Your task to perform on an android device: show emergency info Image 0: 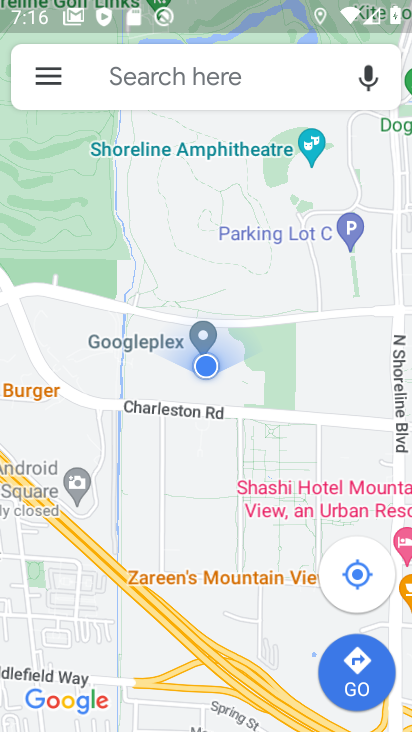
Step 0: press home button
Your task to perform on an android device: show emergency info Image 1: 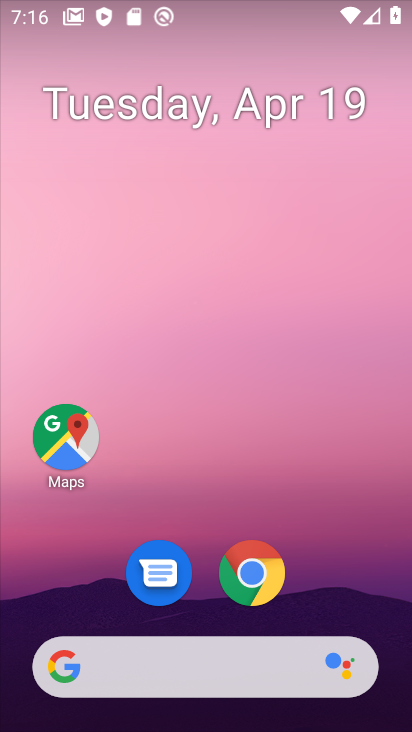
Step 1: click (334, 155)
Your task to perform on an android device: show emergency info Image 2: 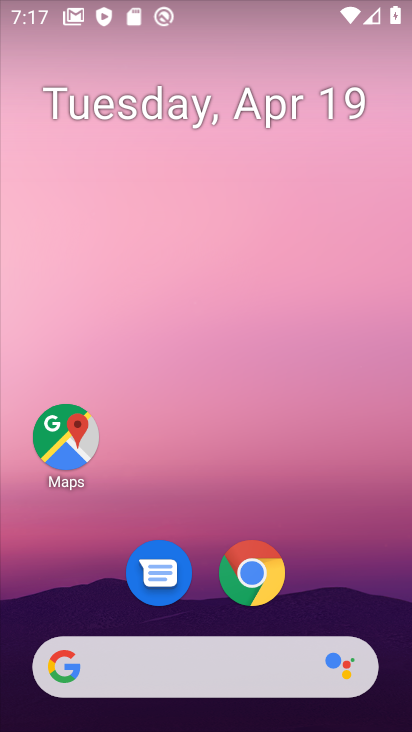
Step 2: drag from (341, 411) to (309, 90)
Your task to perform on an android device: show emergency info Image 3: 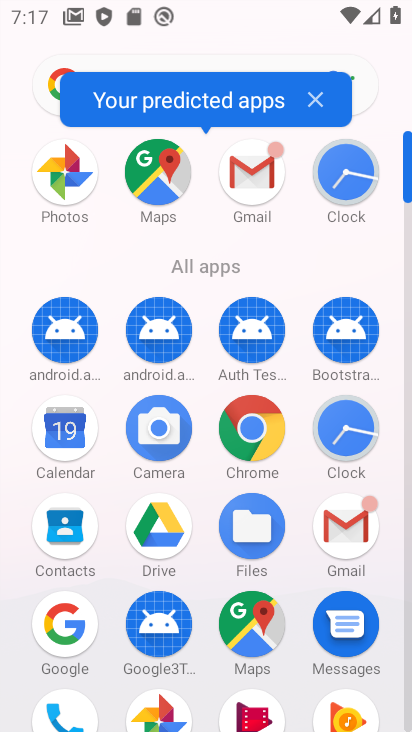
Step 3: drag from (407, 177) to (404, 33)
Your task to perform on an android device: show emergency info Image 4: 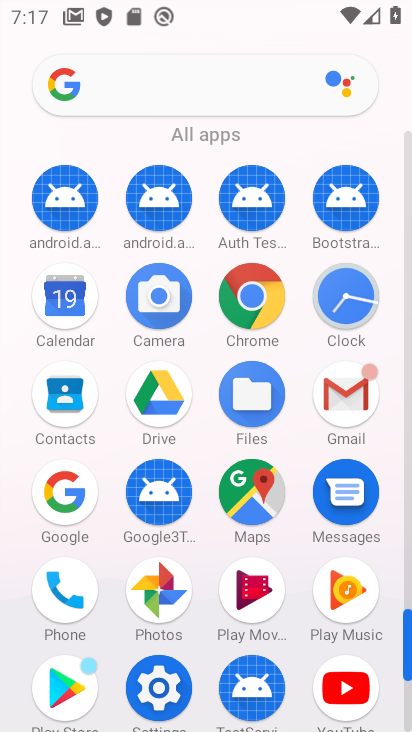
Step 4: click (150, 659)
Your task to perform on an android device: show emergency info Image 5: 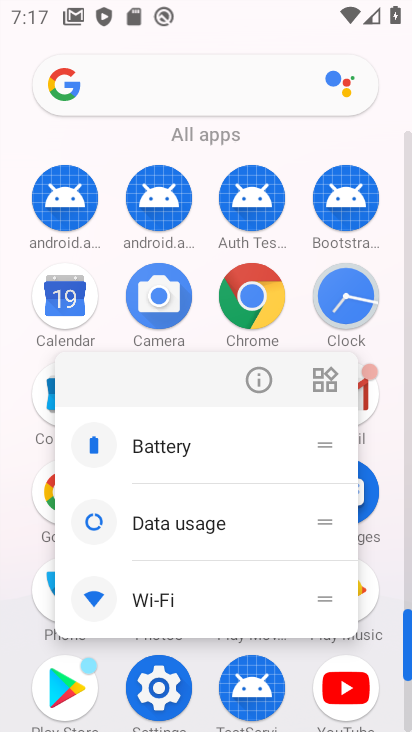
Step 5: click (144, 690)
Your task to perform on an android device: show emergency info Image 6: 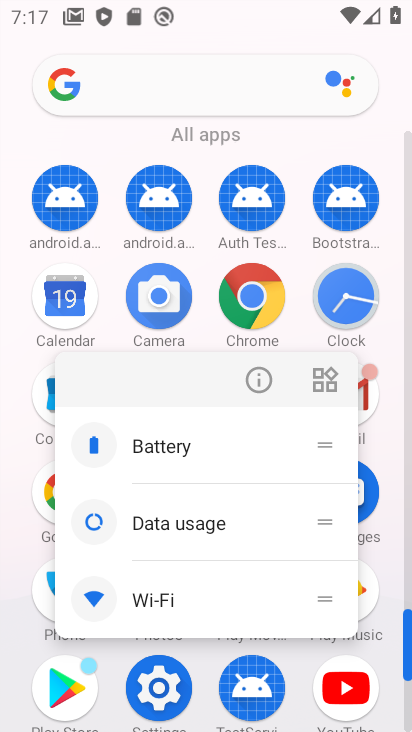
Step 6: click (159, 661)
Your task to perform on an android device: show emergency info Image 7: 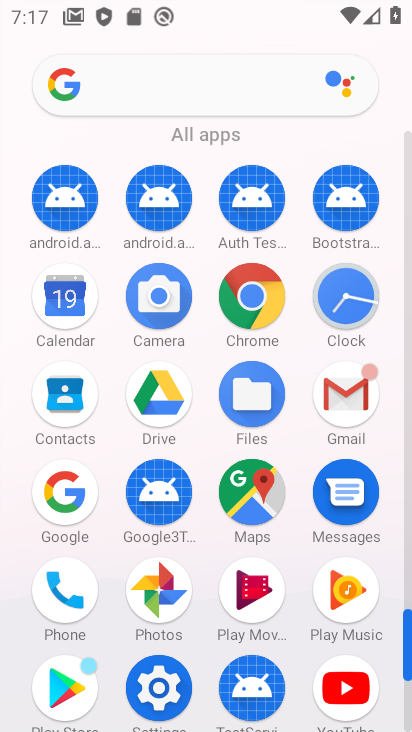
Step 7: click (136, 677)
Your task to perform on an android device: show emergency info Image 8: 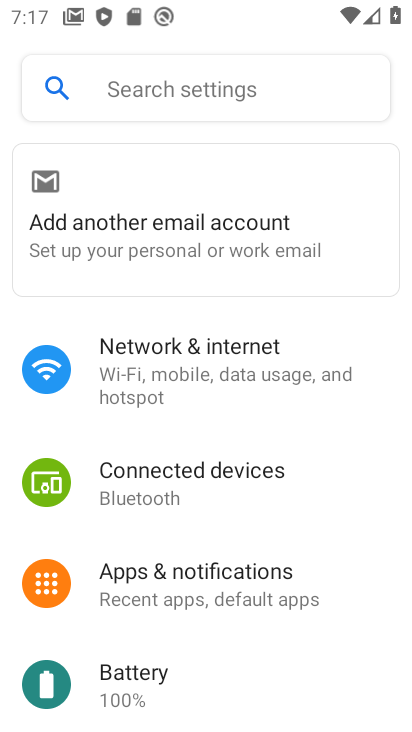
Step 8: drag from (403, 195) to (391, 37)
Your task to perform on an android device: show emergency info Image 9: 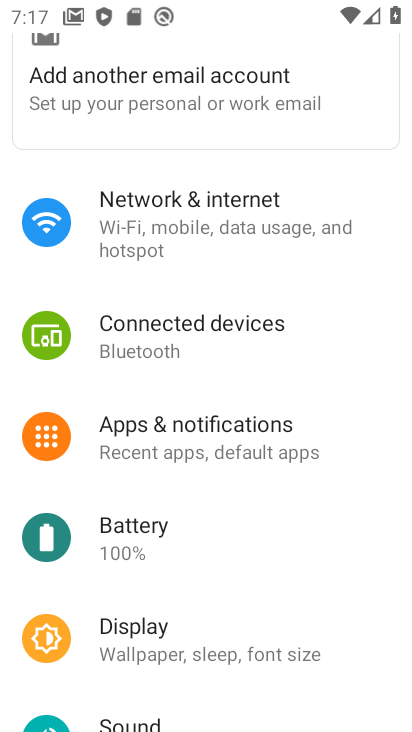
Step 9: click (403, 154)
Your task to perform on an android device: show emergency info Image 10: 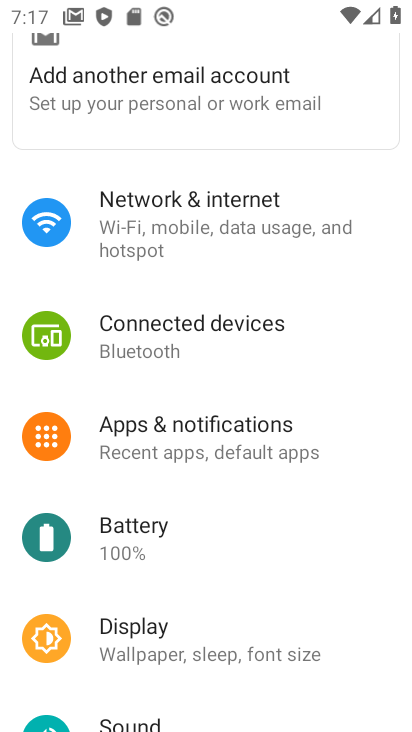
Step 10: drag from (408, 160) to (406, 15)
Your task to perform on an android device: show emergency info Image 11: 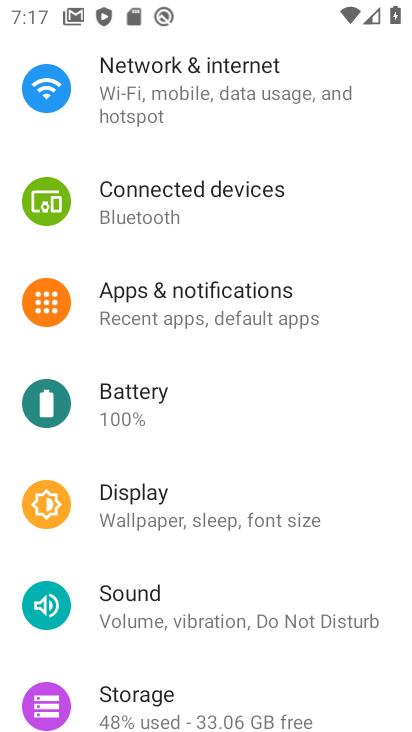
Step 11: drag from (401, 476) to (366, 168)
Your task to perform on an android device: show emergency info Image 12: 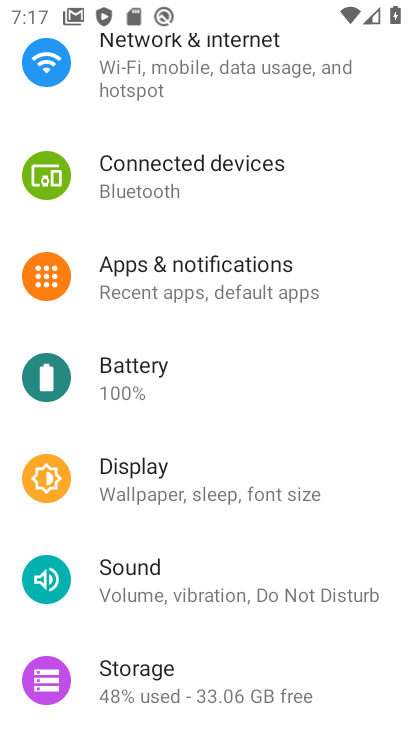
Step 12: drag from (404, 443) to (403, 232)
Your task to perform on an android device: show emergency info Image 13: 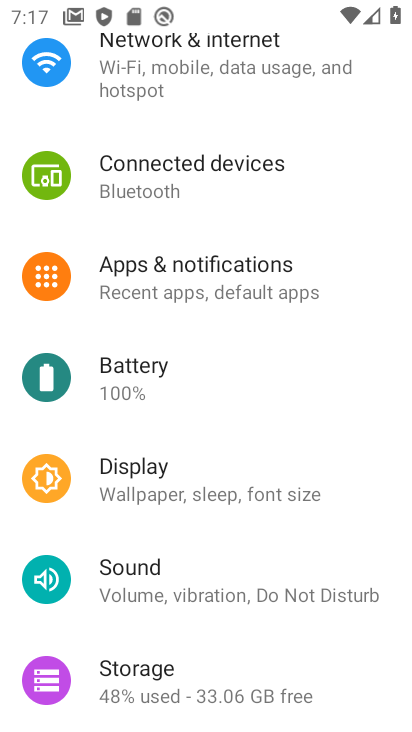
Step 13: drag from (406, 446) to (400, 199)
Your task to perform on an android device: show emergency info Image 14: 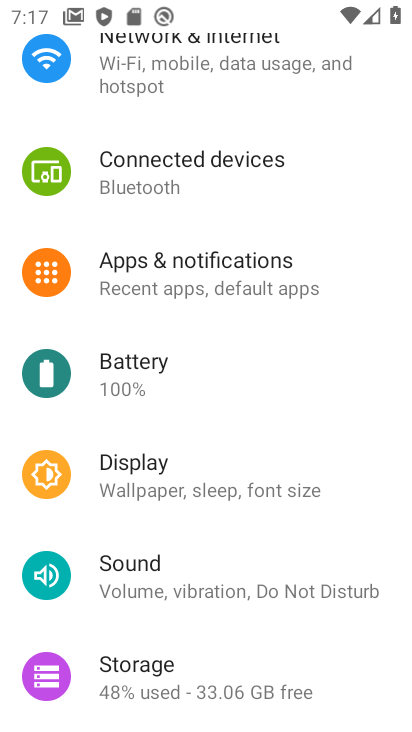
Step 14: drag from (404, 537) to (392, 187)
Your task to perform on an android device: show emergency info Image 15: 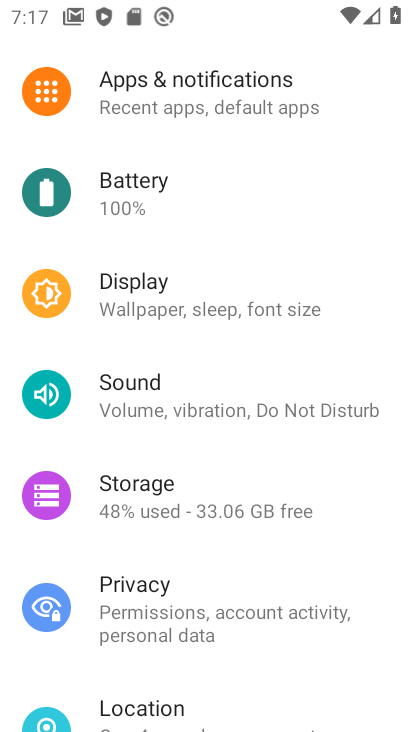
Step 15: drag from (381, 239) to (369, 121)
Your task to perform on an android device: show emergency info Image 16: 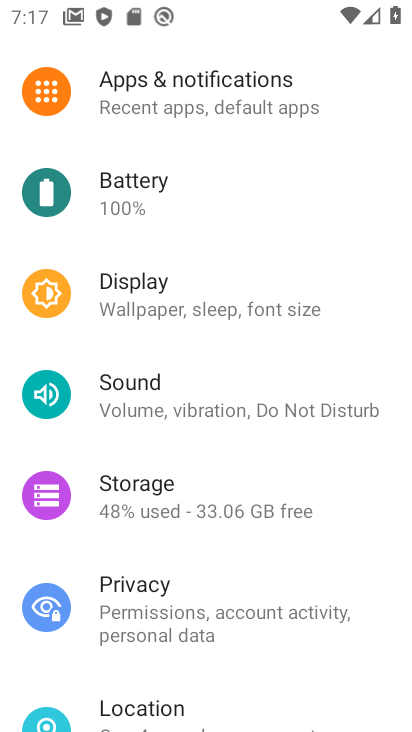
Step 16: drag from (403, 316) to (403, 28)
Your task to perform on an android device: show emergency info Image 17: 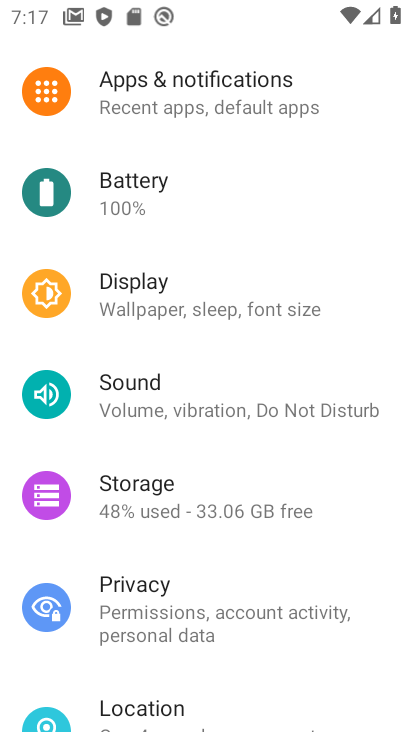
Step 17: drag from (401, 430) to (396, 162)
Your task to perform on an android device: show emergency info Image 18: 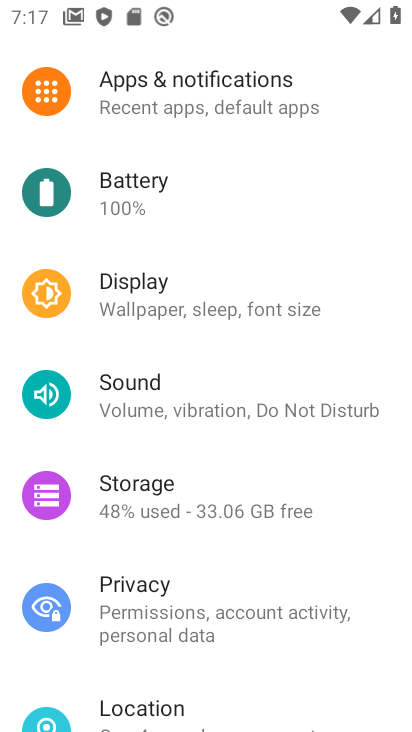
Step 18: drag from (402, 514) to (399, 230)
Your task to perform on an android device: show emergency info Image 19: 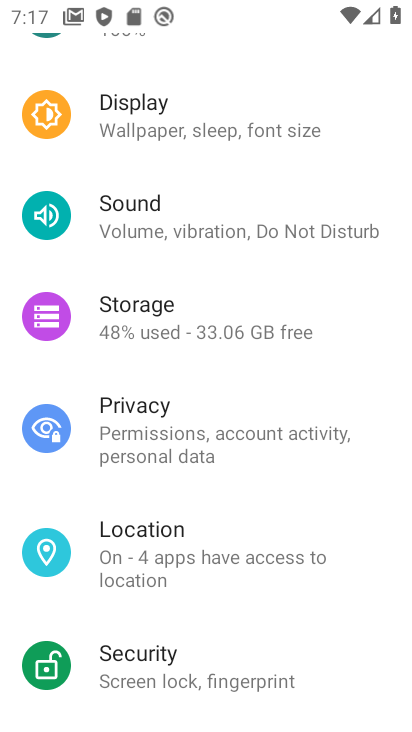
Step 19: drag from (411, 367) to (405, 136)
Your task to perform on an android device: show emergency info Image 20: 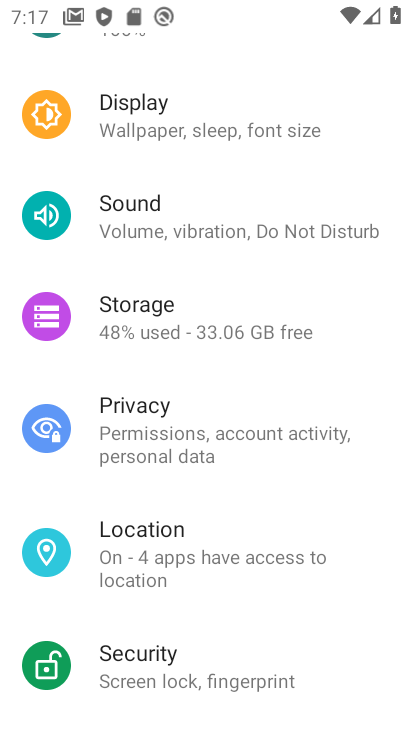
Step 20: drag from (388, 533) to (366, 169)
Your task to perform on an android device: show emergency info Image 21: 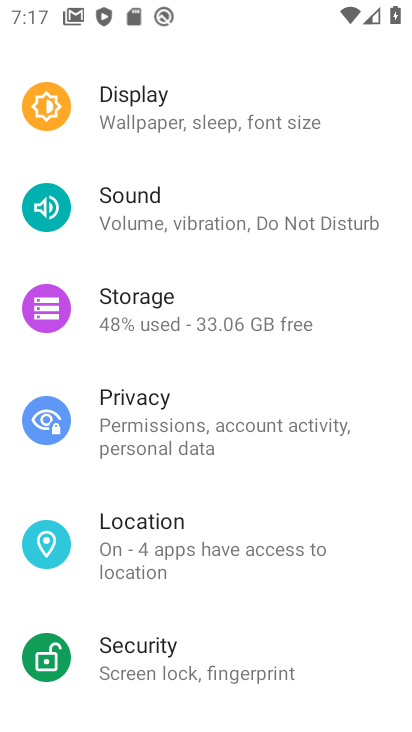
Step 21: drag from (387, 480) to (393, 104)
Your task to perform on an android device: show emergency info Image 22: 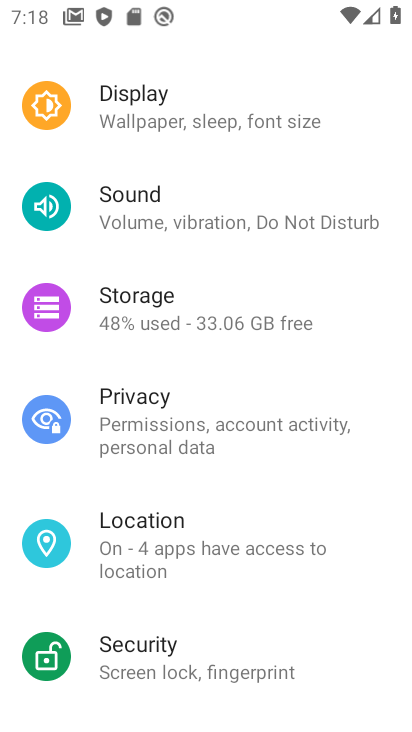
Step 22: drag from (393, 518) to (378, 148)
Your task to perform on an android device: show emergency info Image 23: 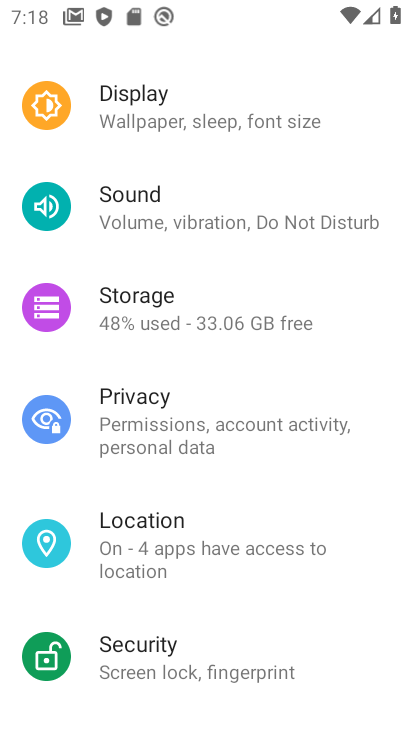
Step 23: drag from (391, 481) to (400, 144)
Your task to perform on an android device: show emergency info Image 24: 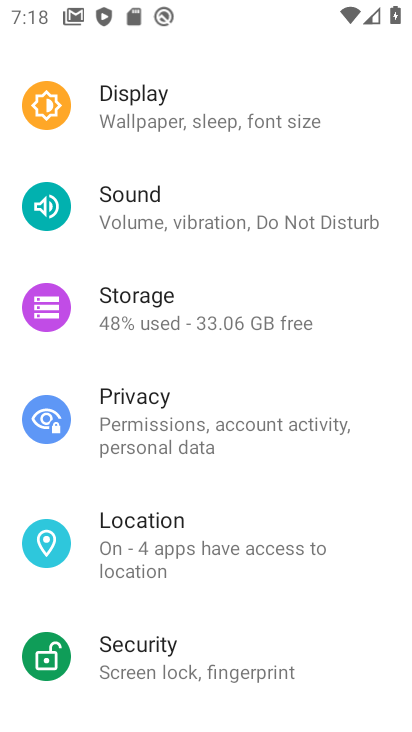
Step 24: drag from (396, 517) to (371, 236)
Your task to perform on an android device: show emergency info Image 25: 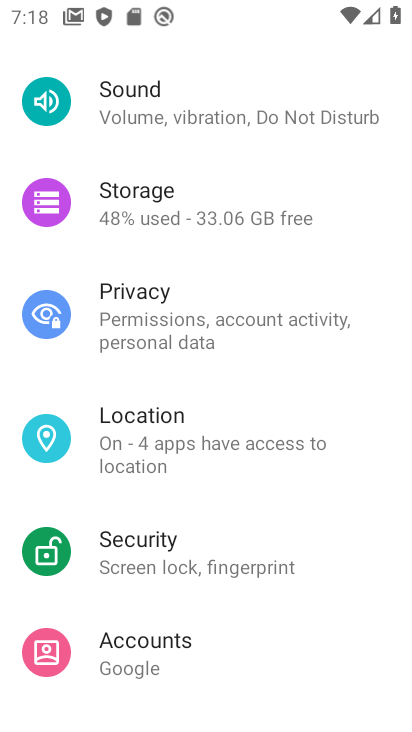
Step 25: drag from (389, 583) to (399, 247)
Your task to perform on an android device: show emergency info Image 26: 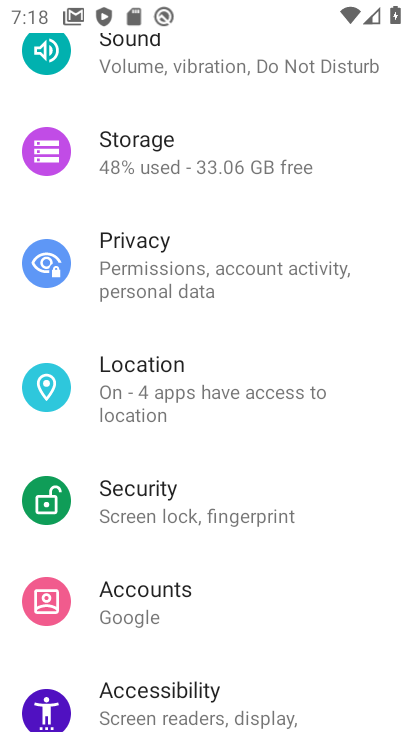
Step 26: drag from (394, 536) to (396, 268)
Your task to perform on an android device: show emergency info Image 27: 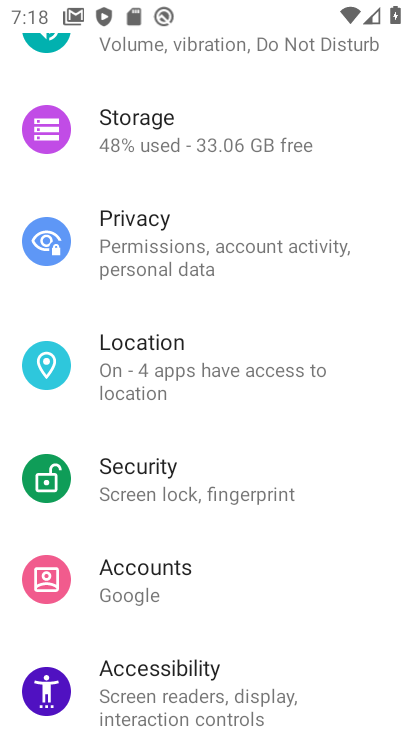
Step 27: drag from (407, 305) to (410, 108)
Your task to perform on an android device: show emergency info Image 28: 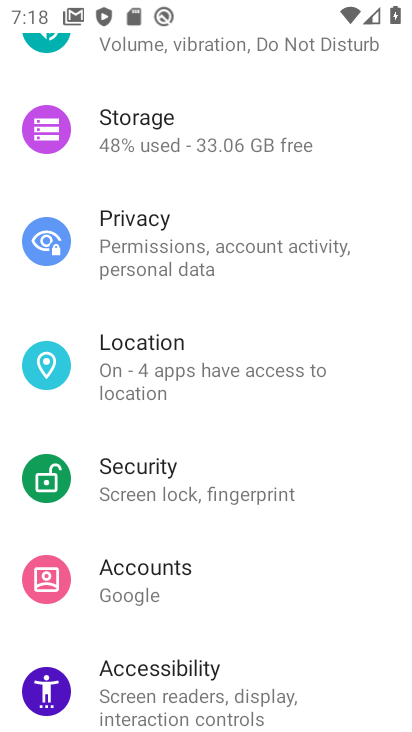
Step 28: drag from (400, 582) to (387, 237)
Your task to perform on an android device: show emergency info Image 29: 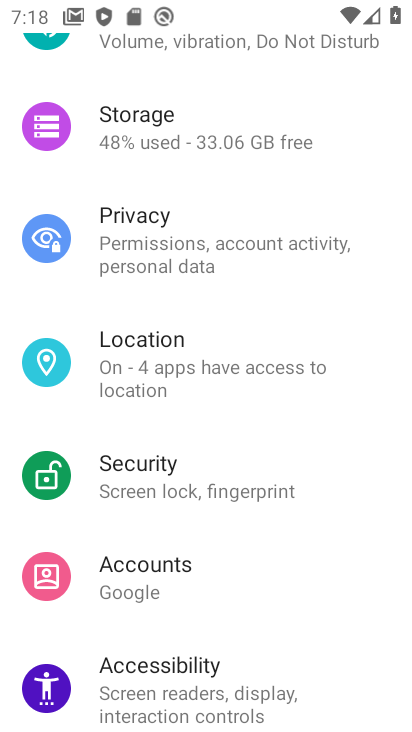
Step 29: click (408, 109)
Your task to perform on an android device: show emergency info Image 30: 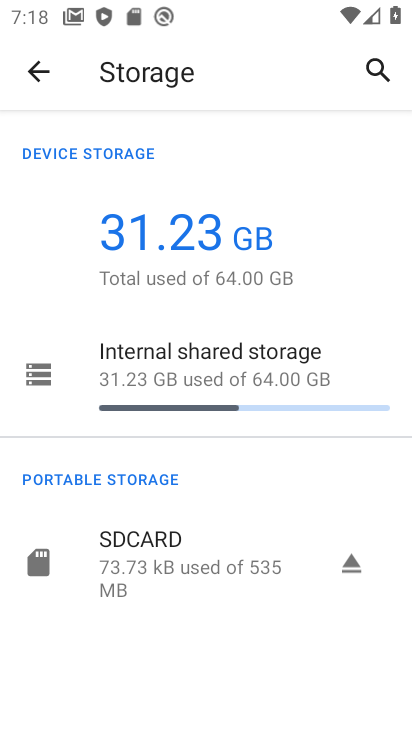
Step 30: drag from (392, 531) to (390, 139)
Your task to perform on an android device: show emergency info Image 31: 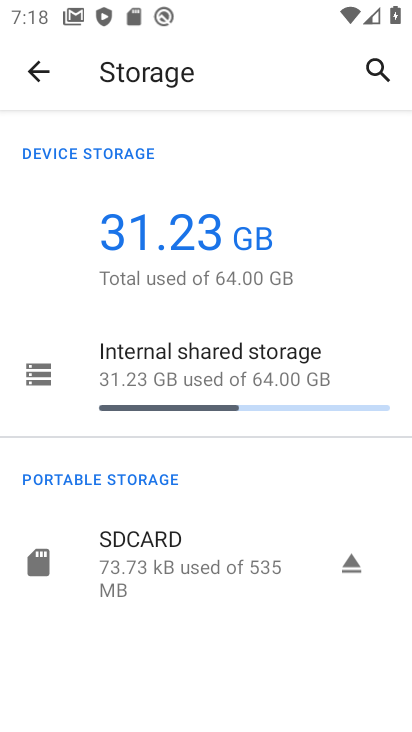
Step 31: press back button
Your task to perform on an android device: show emergency info Image 32: 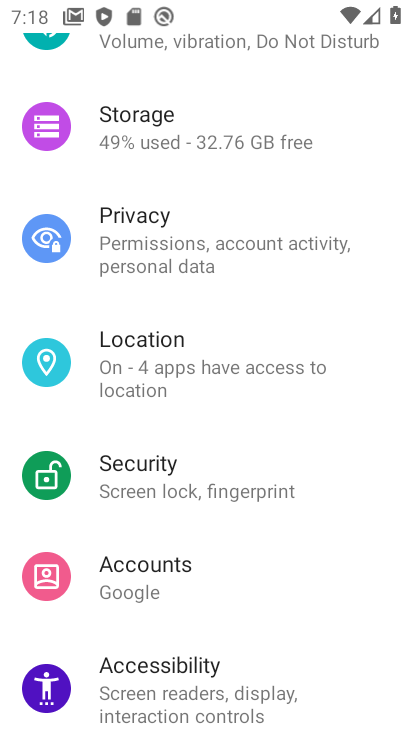
Step 32: drag from (395, 602) to (390, 266)
Your task to perform on an android device: show emergency info Image 33: 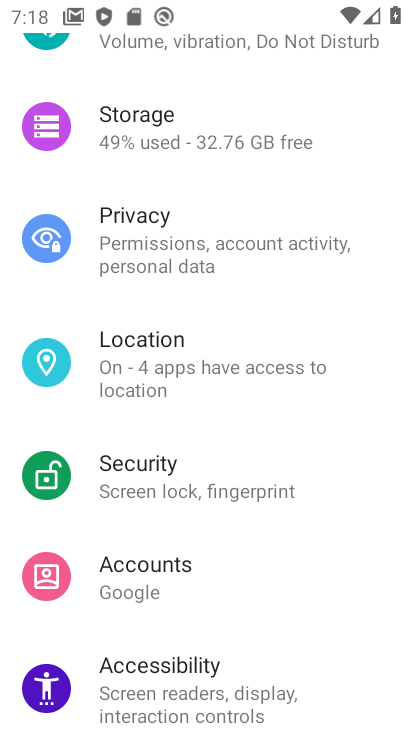
Step 33: drag from (399, 618) to (395, 146)
Your task to perform on an android device: show emergency info Image 34: 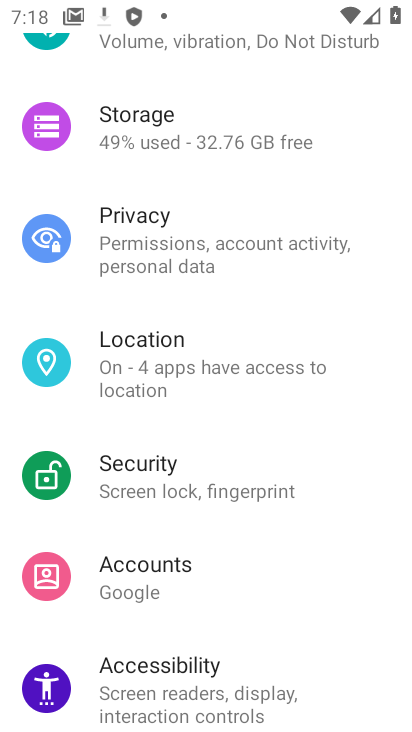
Step 34: drag from (398, 660) to (407, 396)
Your task to perform on an android device: show emergency info Image 35: 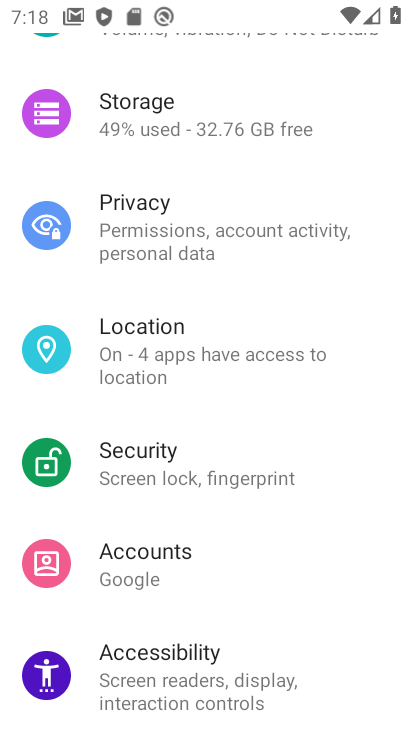
Step 35: drag from (390, 676) to (410, 275)
Your task to perform on an android device: show emergency info Image 36: 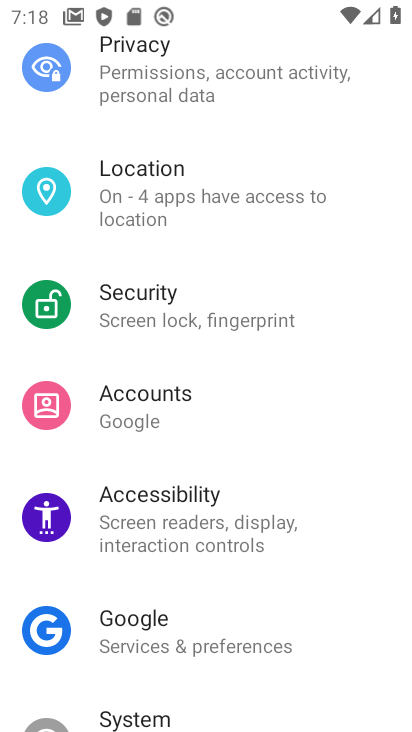
Step 36: drag from (381, 572) to (400, 31)
Your task to perform on an android device: show emergency info Image 37: 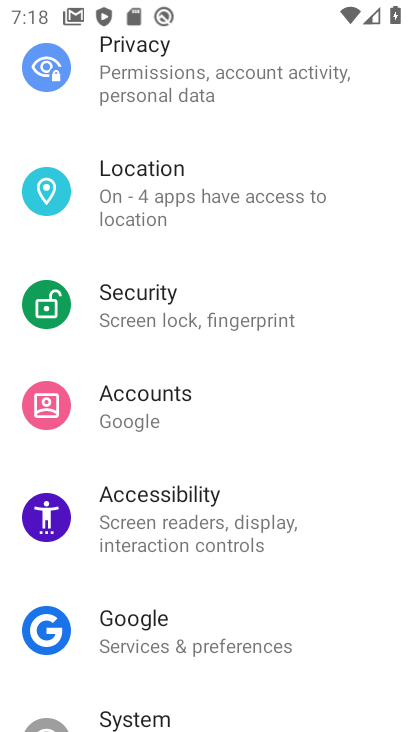
Step 37: drag from (373, 637) to (378, 134)
Your task to perform on an android device: show emergency info Image 38: 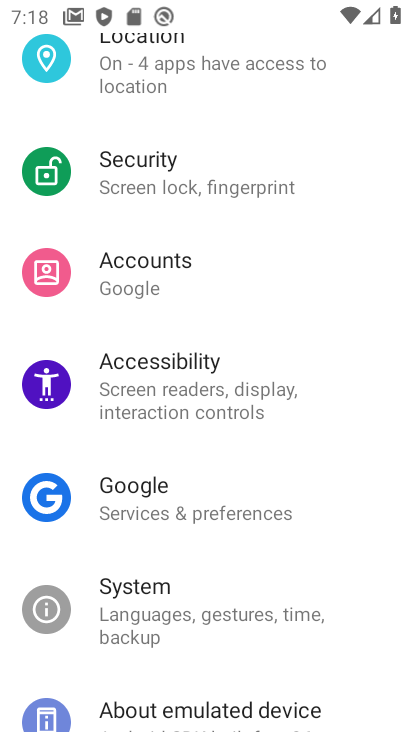
Step 38: click (239, 699)
Your task to perform on an android device: show emergency info Image 39: 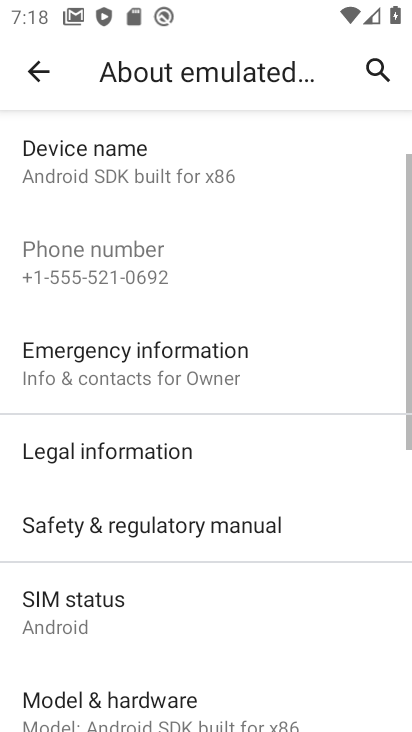
Step 39: drag from (360, 652) to (411, 77)
Your task to perform on an android device: show emergency info Image 40: 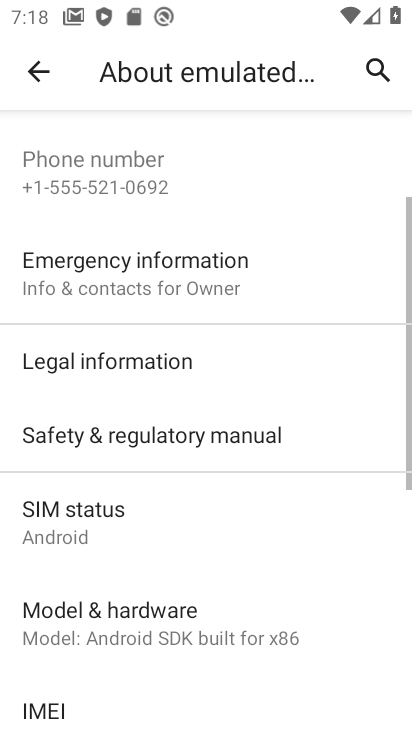
Step 40: drag from (370, 387) to (369, 147)
Your task to perform on an android device: show emergency info Image 41: 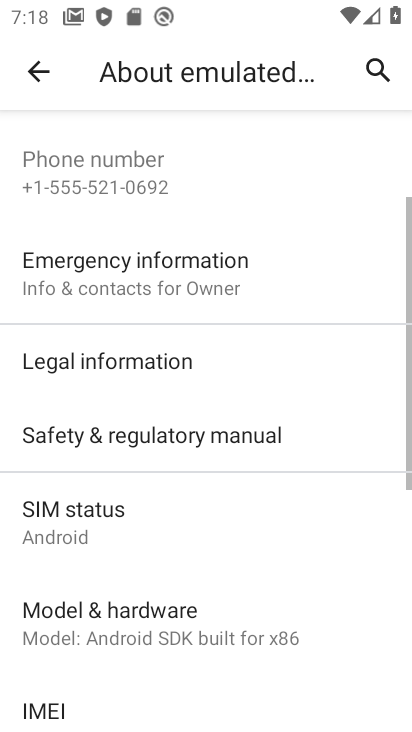
Step 41: click (99, 258)
Your task to perform on an android device: show emergency info Image 42: 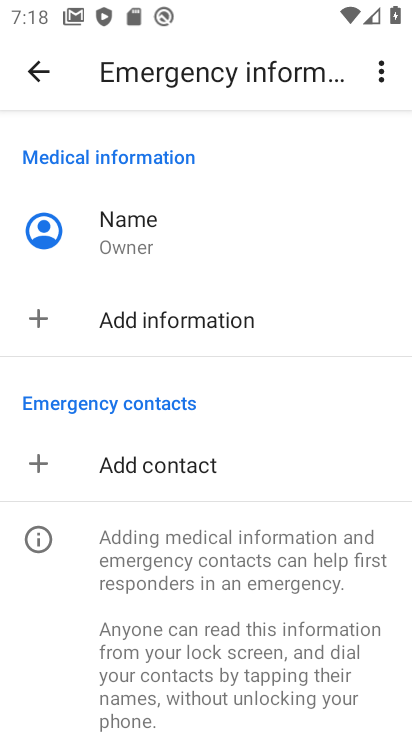
Step 42: task complete